Your task to perform on an android device: set default search engine in the chrome app Image 0: 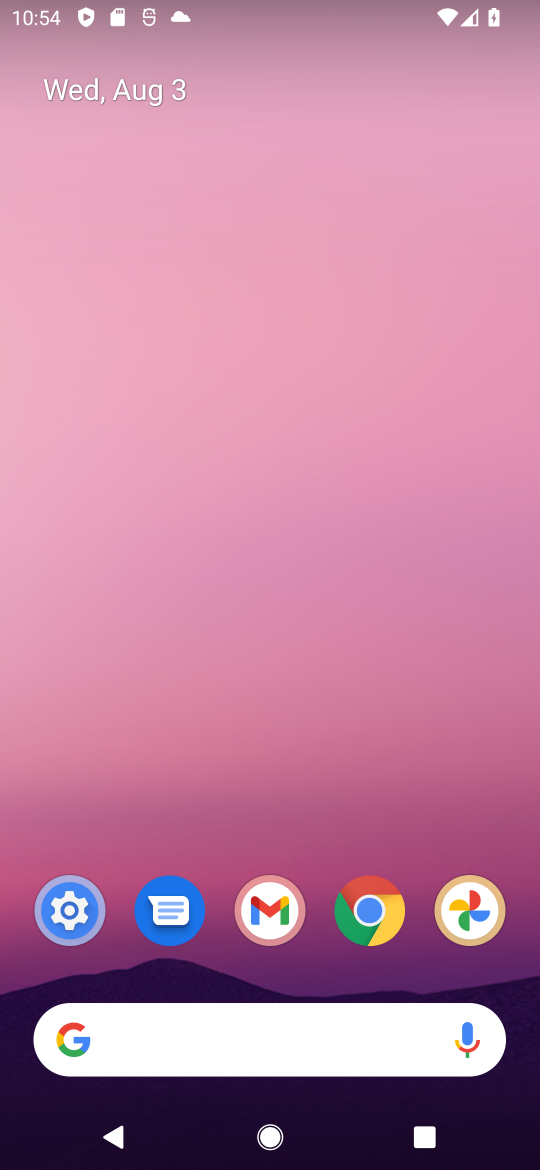
Step 0: click (365, 907)
Your task to perform on an android device: set default search engine in the chrome app Image 1: 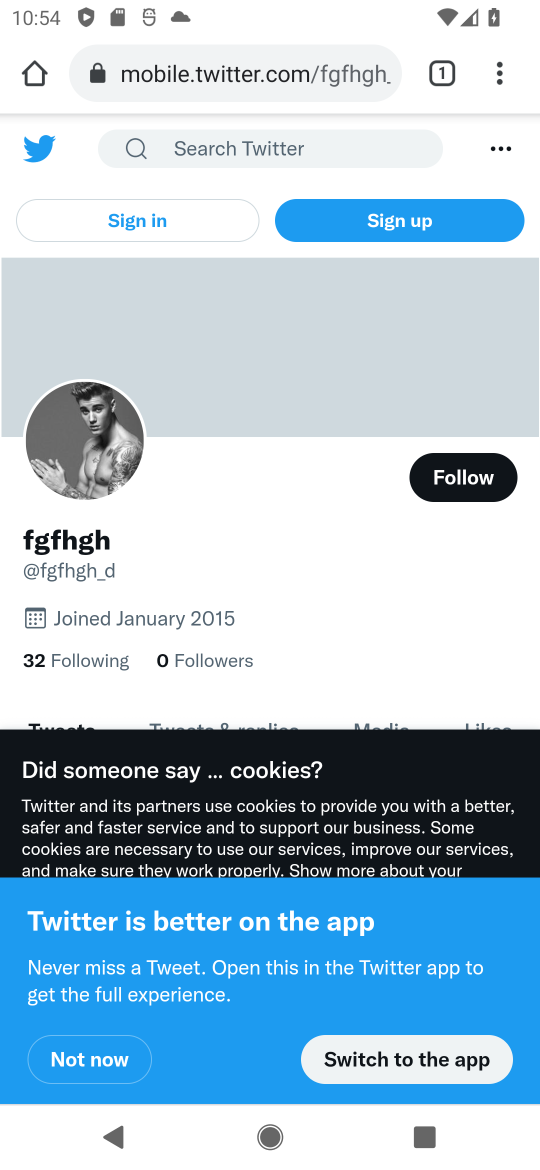
Step 1: click (498, 74)
Your task to perform on an android device: set default search engine in the chrome app Image 2: 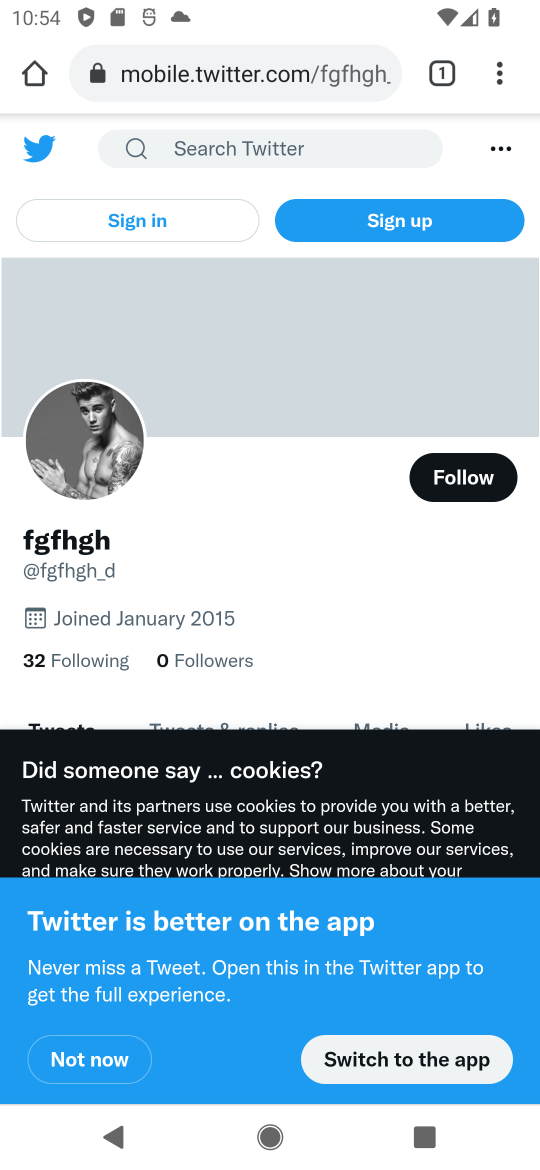
Step 2: click (496, 69)
Your task to perform on an android device: set default search engine in the chrome app Image 3: 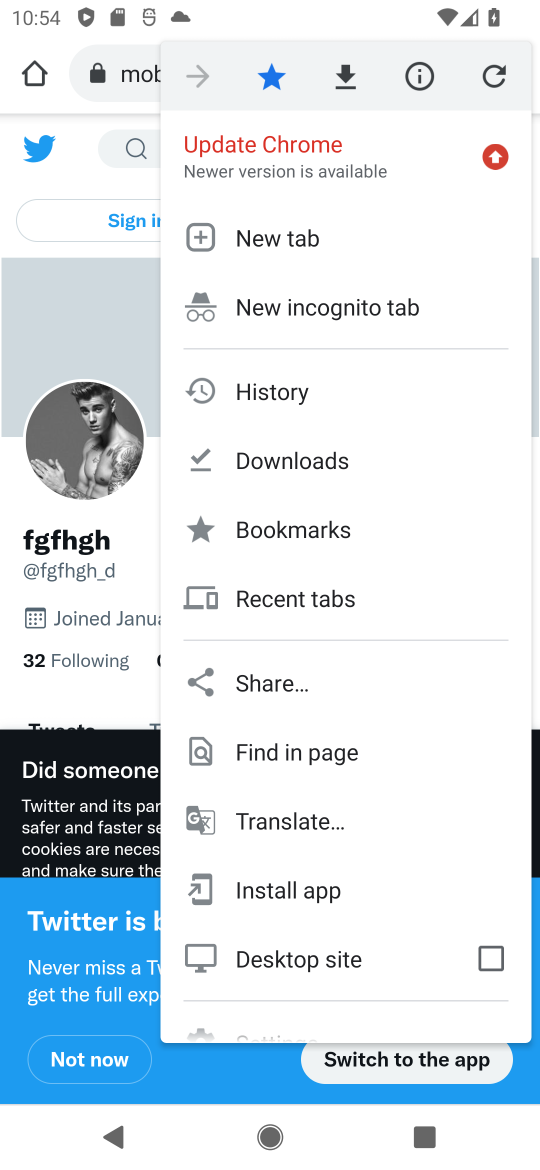
Step 3: drag from (316, 950) to (423, 195)
Your task to perform on an android device: set default search engine in the chrome app Image 4: 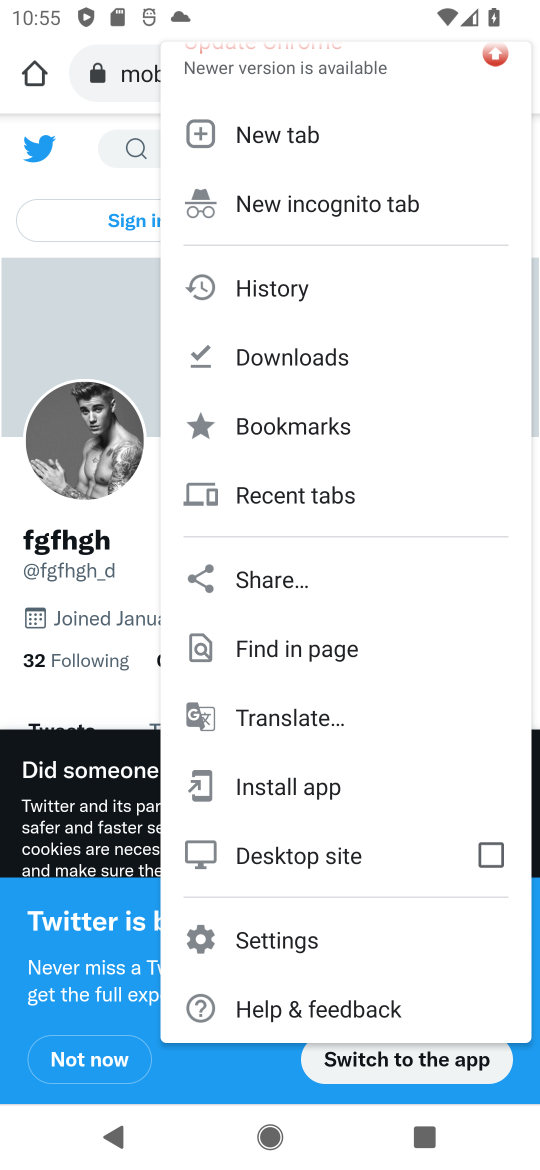
Step 4: click (339, 934)
Your task to perform on an android device: set default search engine in the chrome app Image 5: 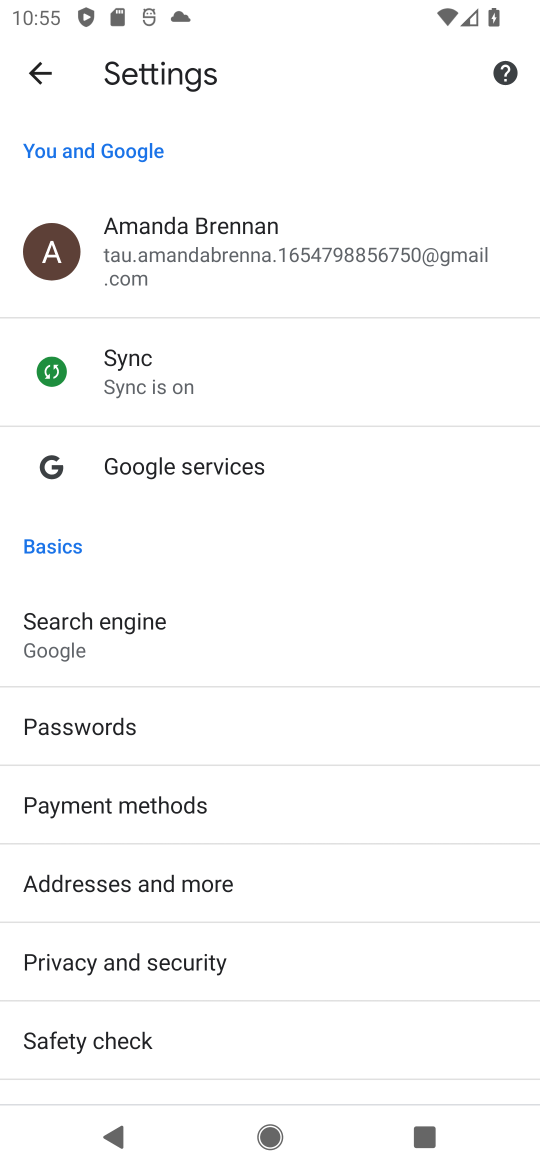
Step 5: click (119, 617)
Your task to perform on an android device: set default search engine in the chrome app Image 6: 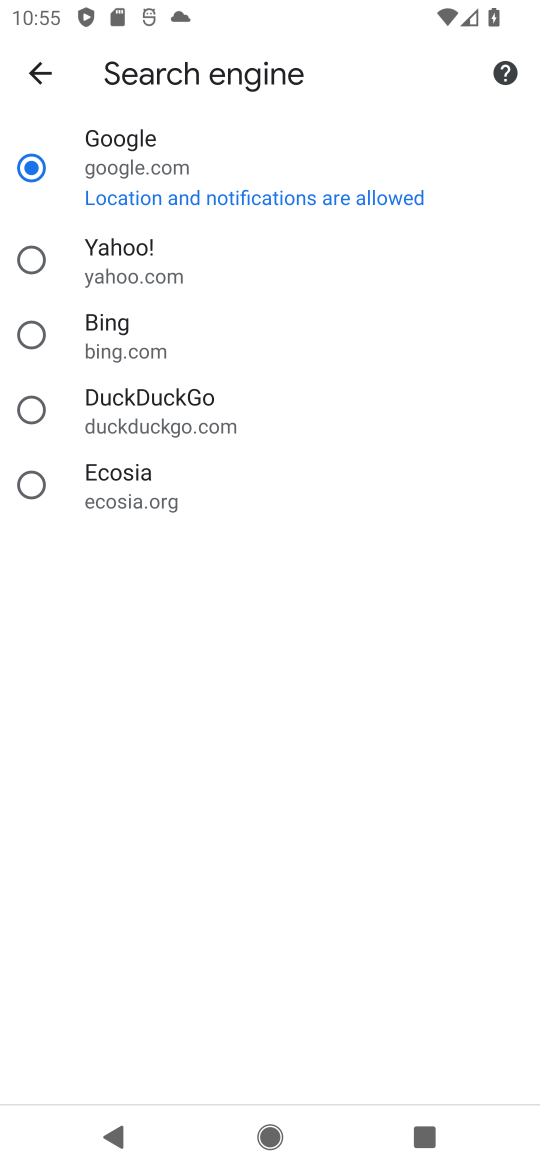
Step 6: click (34, 343)
Your task to perform on an android device: set default search engine in the chrome app Image 7: 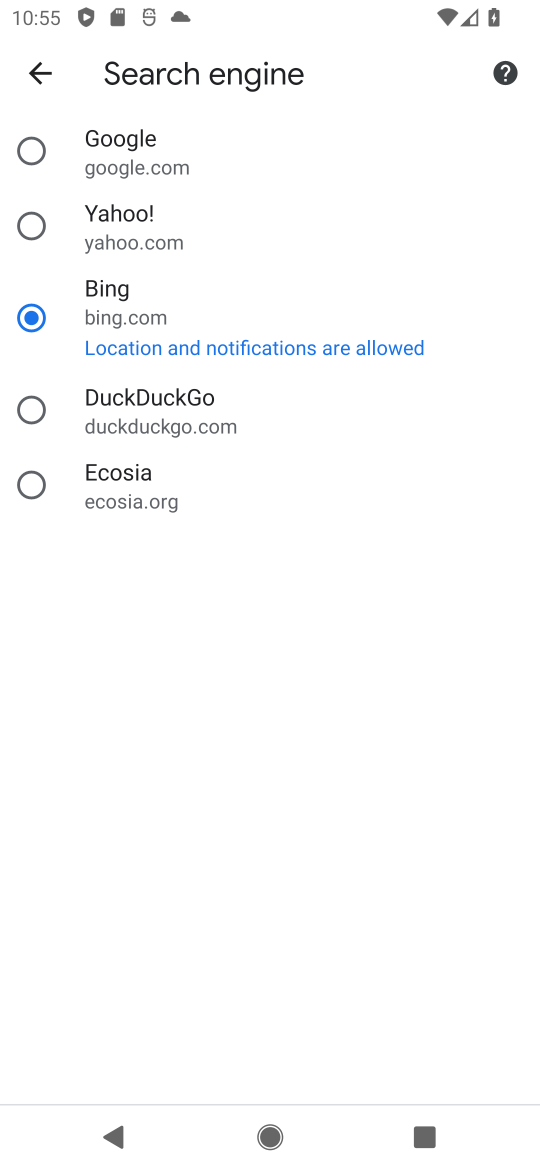
Step 7: task complete